Your task to perform on an android device: Is it going to rain today? Image 0: 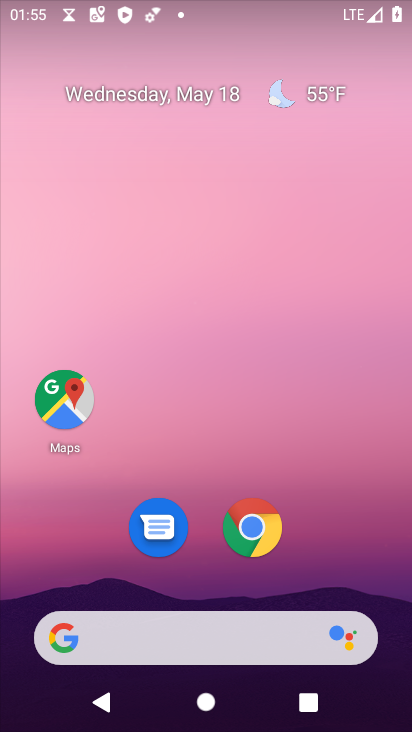
Step 0: click (309, 85)
Your task to perform on an android device: Is it going to rain today? Image 1: 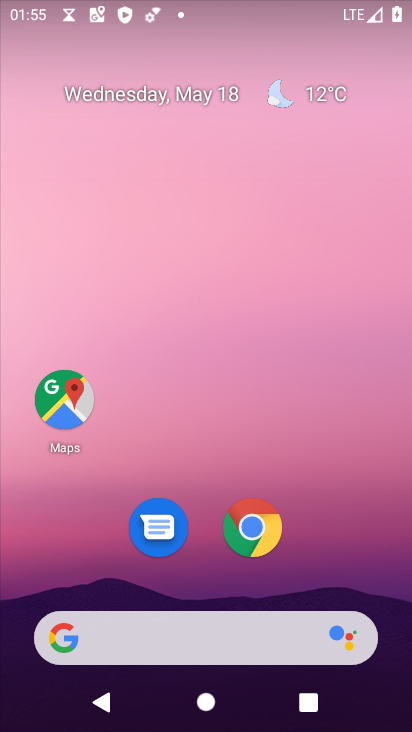
Step 1: click (320, 94)
Your task to perform on an android device: Is it going to rain today? Image 2: 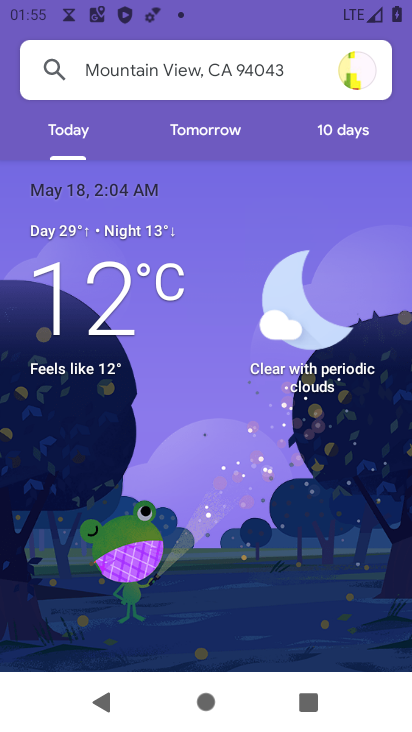
Step 2: task complete